Your task to perform on an android device: change the clock display to analog Image 0: 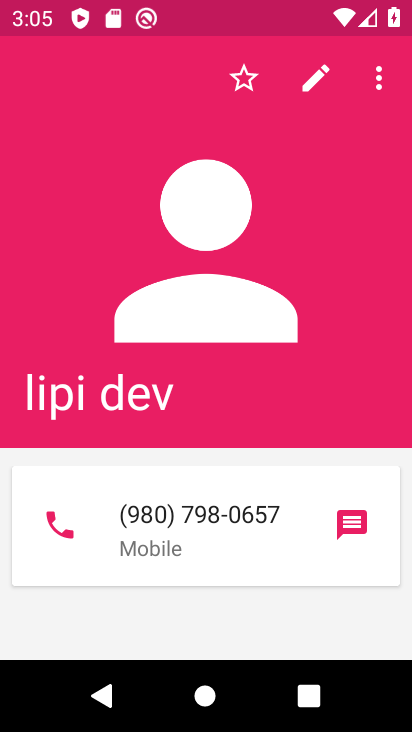
Step 0: press home button
Your task to perform on an android device: change the clock display to analog Image 1: 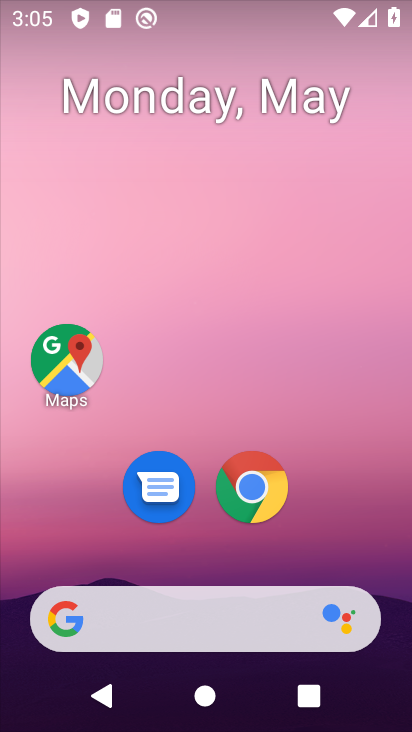
Step 1: drag from (212, 593) to (242, 157)
Your task to perform on an android device: change the clock display to analog Image 2: 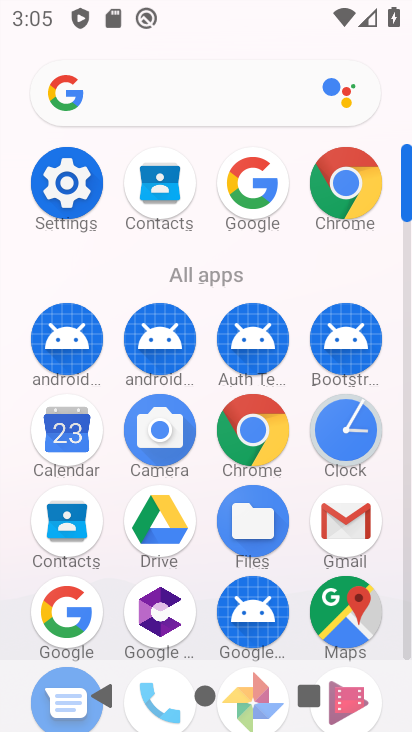
Step 2: click (350, 431)
Your task to perform on an android device: change the clock display to analog Image 3: 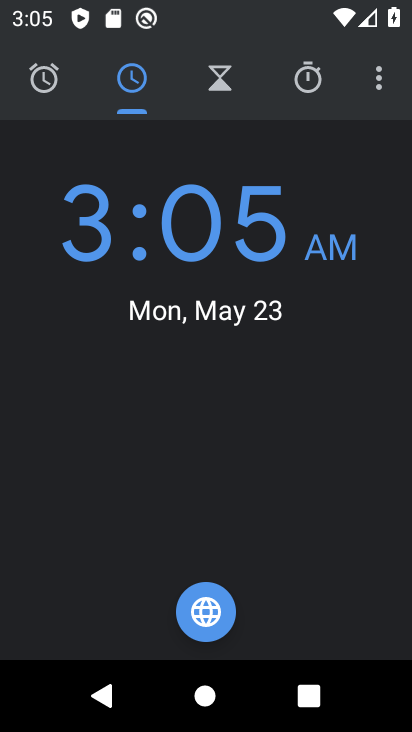
Step 3: click (373, 89)
Your task to perform on an android device: change the clock display to analog Image 4: 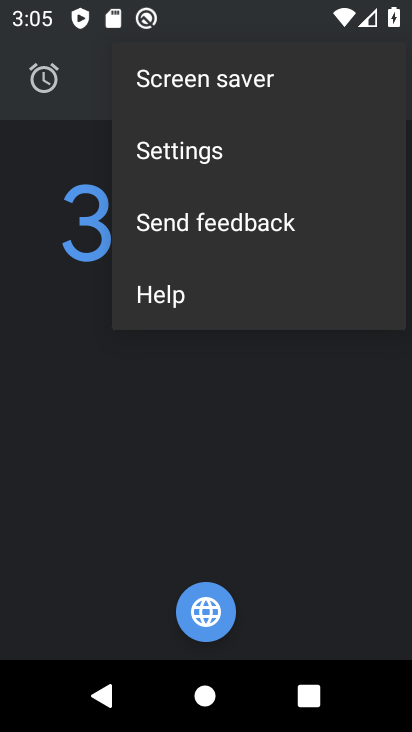
Step 4: click (205, 151)
Your task to perform on an android device: change the clock display to analog Image 5: 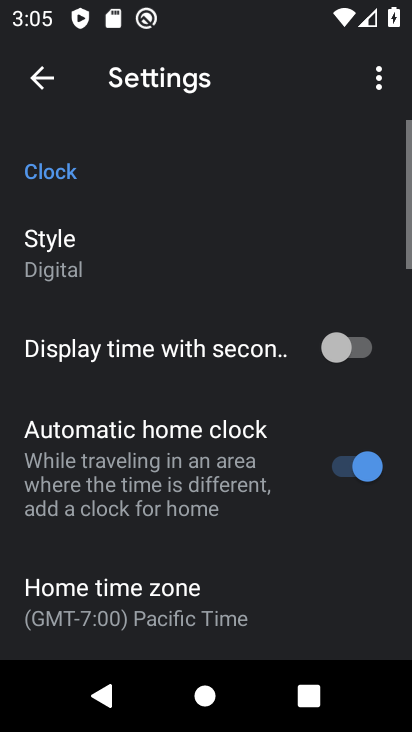
Step 5: click (47, 235)
Your task to perform on an android device: change the clock display to analog Image 6: 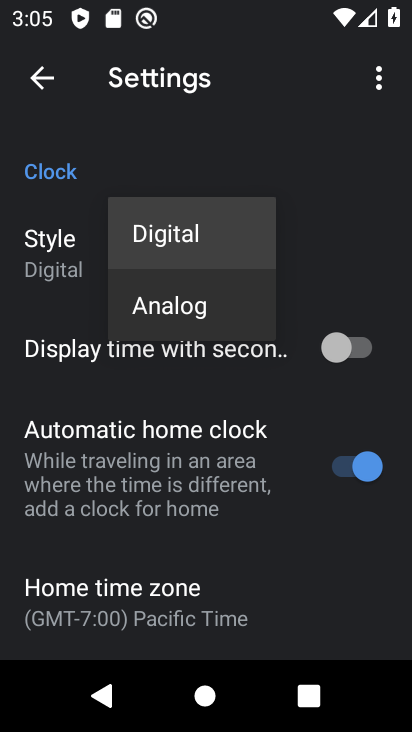
Step 6: click (158, 315)
Your task to perform on an android device: change the clock display to analog Image 7: 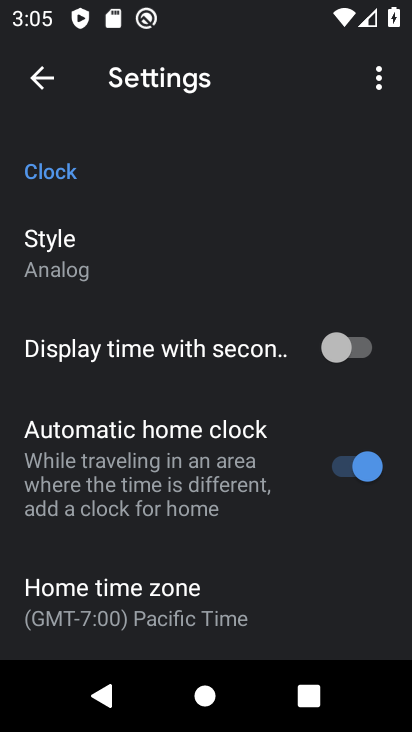
Step 7: task complete